Your task to perform on an android device: open sync settings in chrome Image 0: 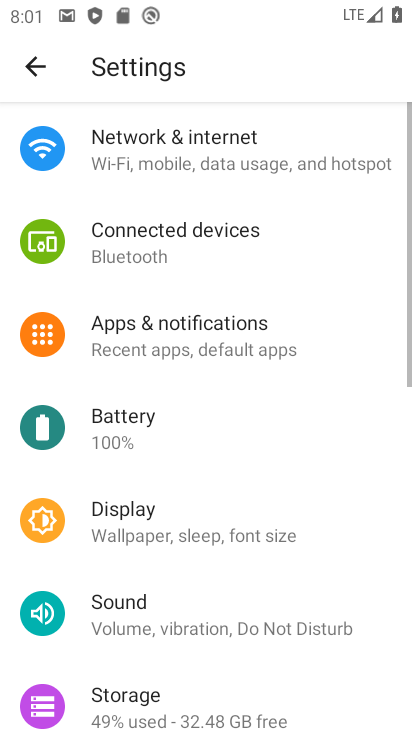
Step 0: press home button
Your task to perform on an android device: open sync settings in chrome Image 1: 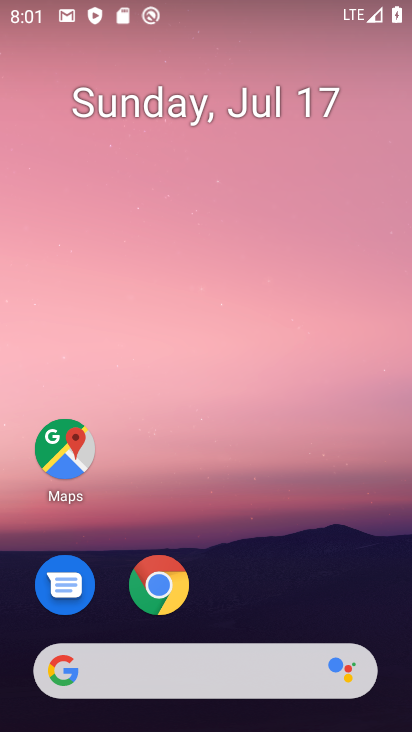
Step 1: click (158, 585)
Your task to perform on an android device: open sync settings in chrome Image 2: 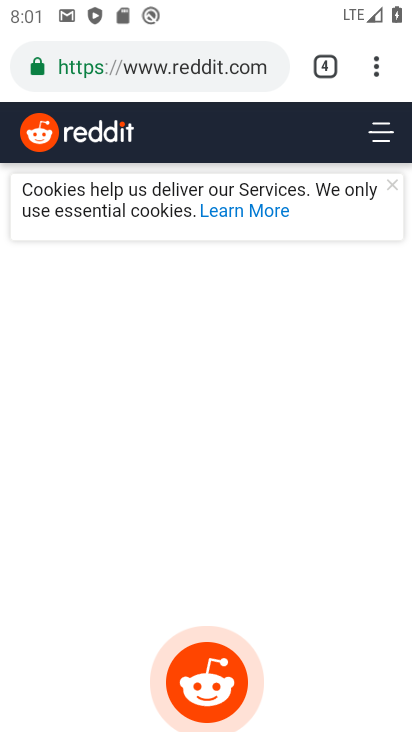
Step 2: drag from (377, 66) to (206, 575)
Your task to perform on an android device: open sync settings in chrome Image 3: 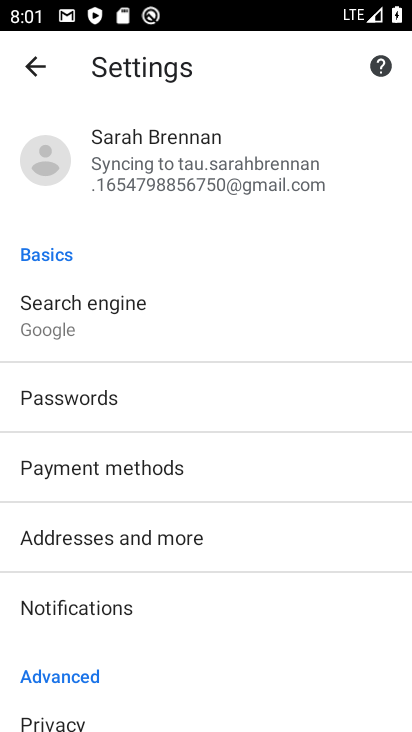
Step 3: click (229, 148)
Your task to perform on an android device: open sync settings in chrome Image 4: 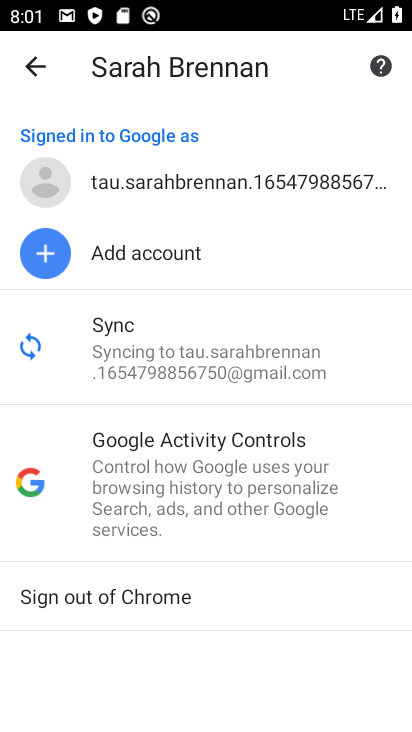
Step 4: click (192, 324)
Your task to perform on an android device: open sync settings in chrome Image 5: 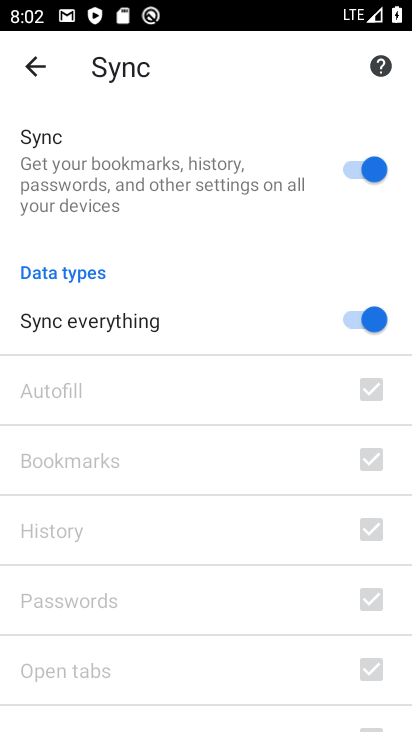
Step 5: task complete